Your task to perform on an android device: toggle javascript in the chrome app Image 0: 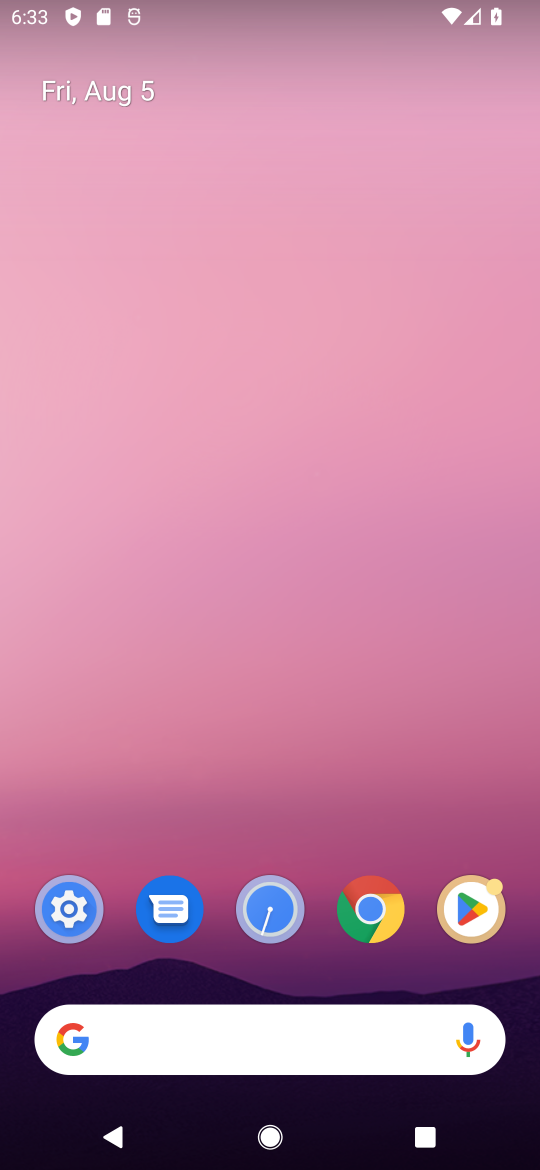
Step 0: click (374, 911)
Your task to perform on an android device: toggle javascript in the chrome app Image 1: 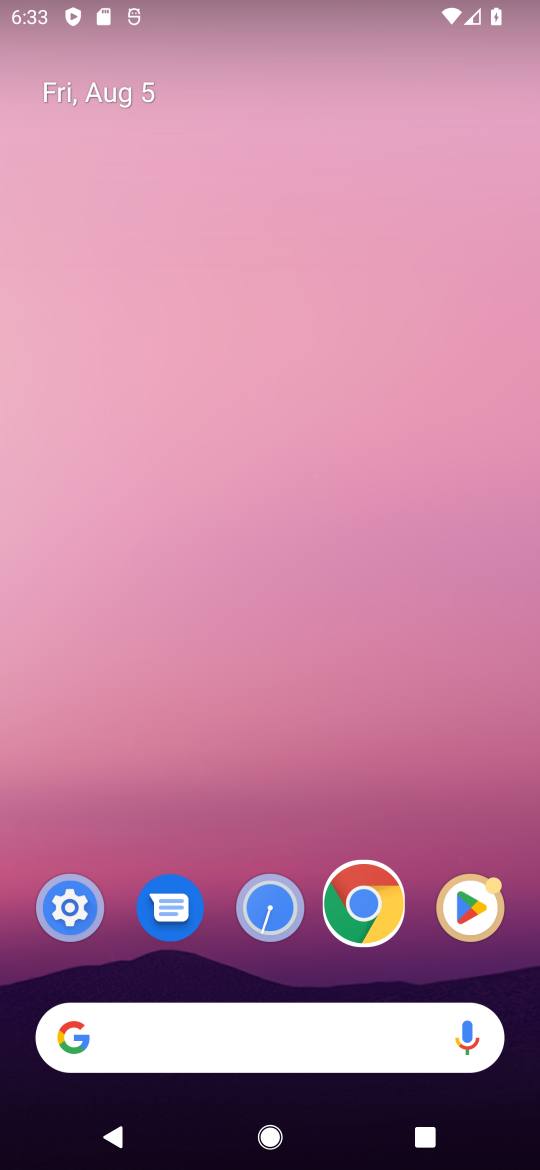
Step 1: click (373, 911)
Your task to perform on an android device: toggle javascript in the chrome app Image 2: 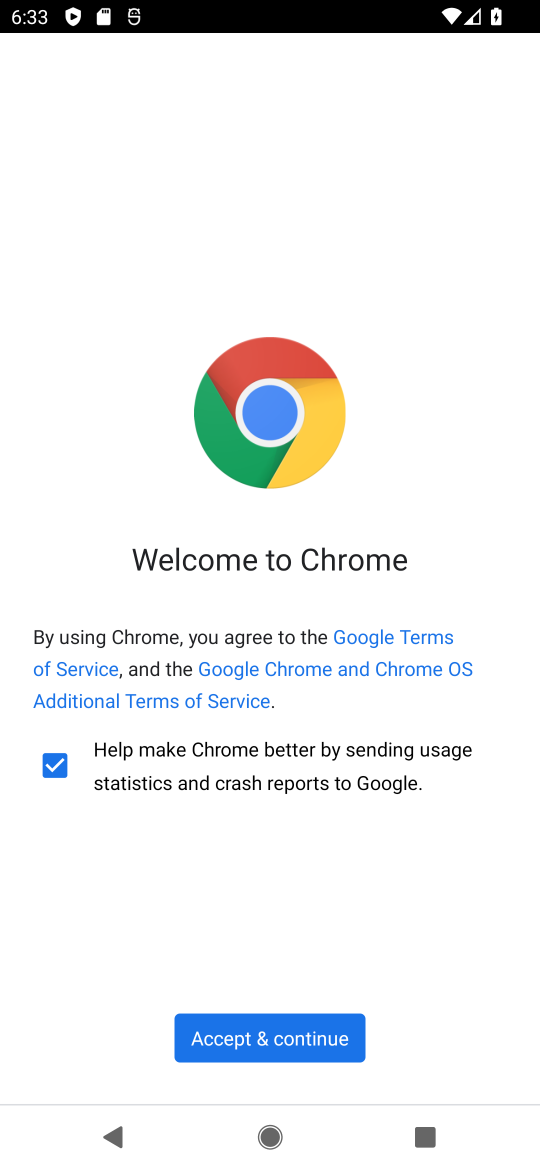
Step 2: click (311, 1043)
Your task to perform on an android device: toggle javascript in the chrome app Image 3: 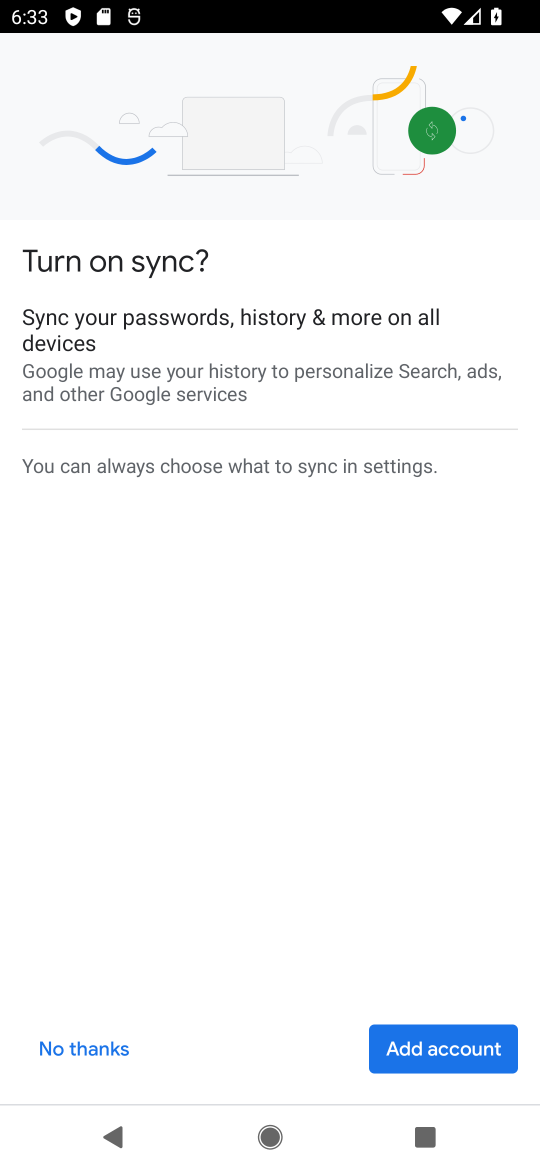
Step 3: click (100, 1045)
Your task to perform on an android device: toggle javascript in the chrome app Image 4: 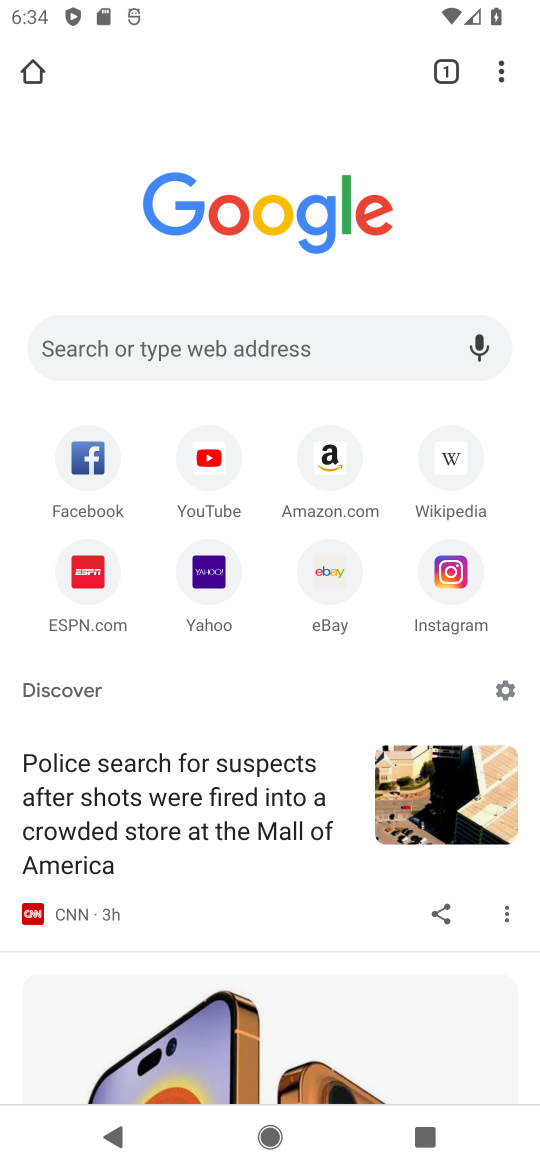
Step 4: drag from (486, 61) to (283, 668)
Your task to perform on an android device: toggle javascript in the chrome app Image 5: 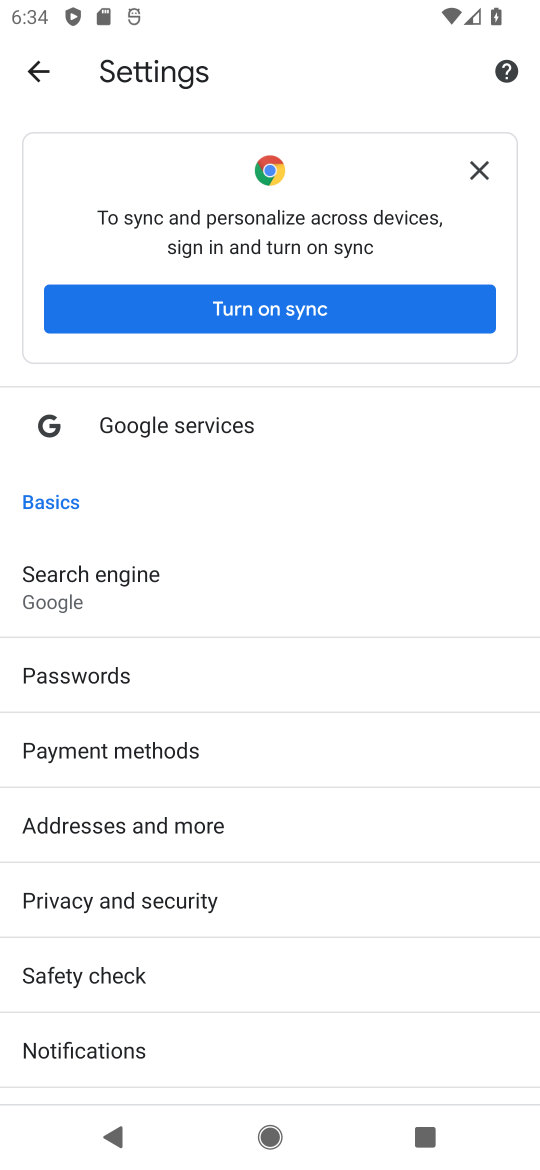
Step 5: drag from (211, 1036) to (277, 449)
Your task to perform on an android device: toggle javascript in the chrome app Image 6: 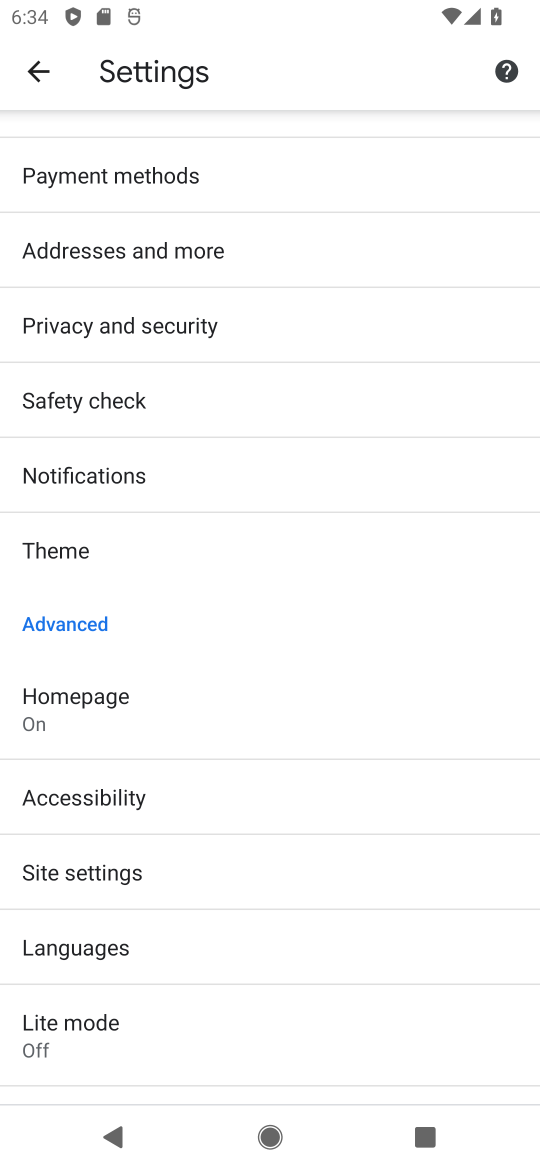
Step 6: click (127, 869)
Your task to perform on an android device: toggle javascript in the chrome app Image 7: 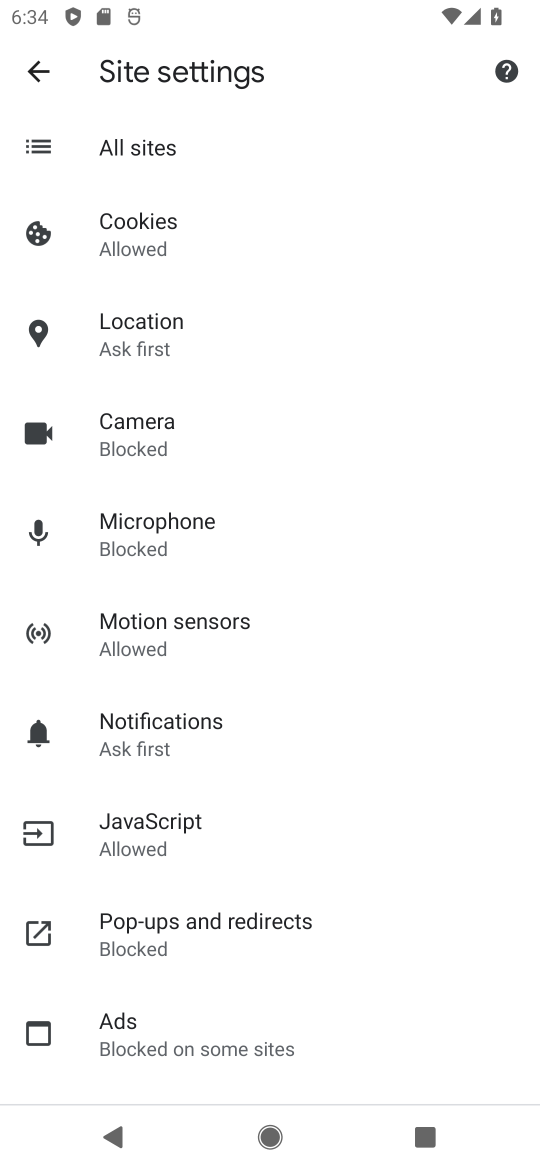
Step 7: click (172, 821)
Your task to perform on an android device: toggle javascript in the chrome app Image 8: 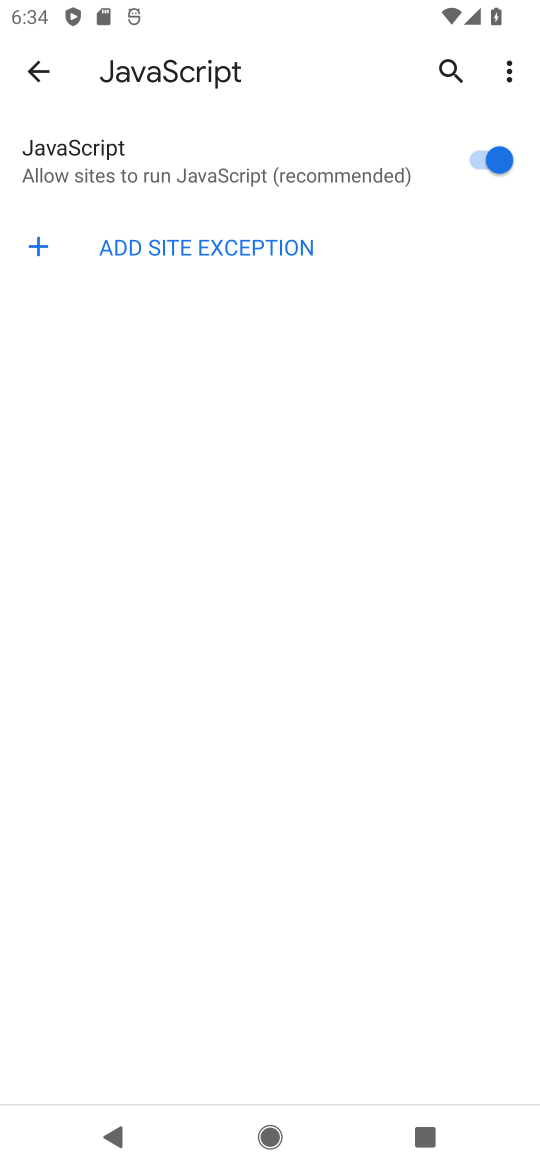
Step 8: click (492, 156)
Your task to perform on an android device: toggle javascript in the chrome app Image 9: 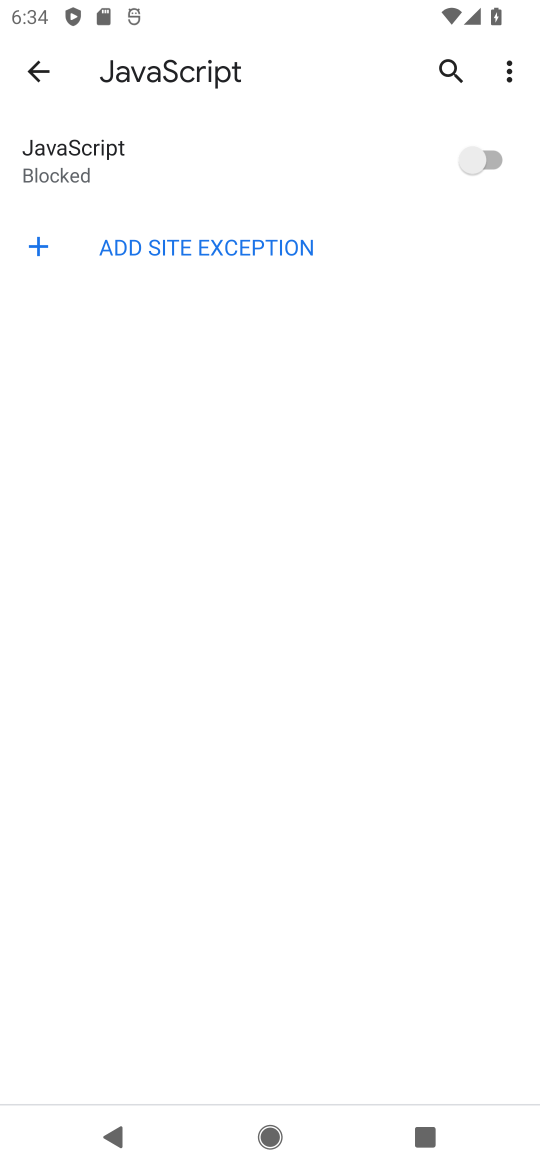
Step 9: task complete